Your task to perform on an android device: turn on location history Image 0: 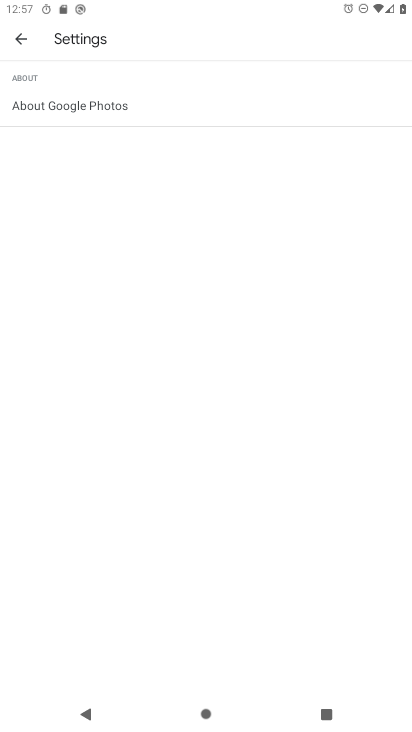
Step 0: press home button
Your task to perform on an android device: turn on location history Image 1: 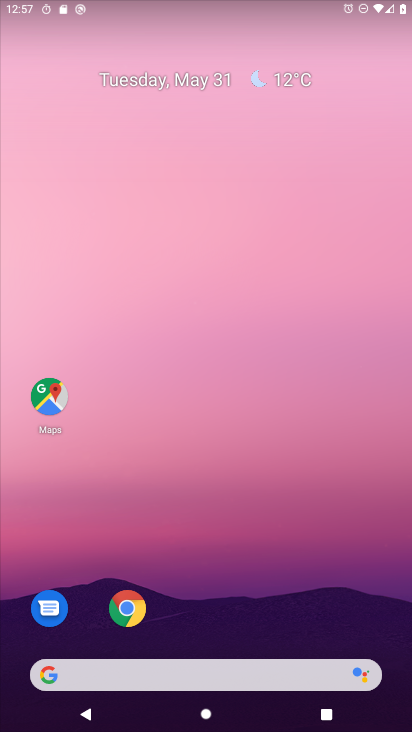
Step 1: click (42, 396)
Your task to perform on an android device: turn on location history Image 2: 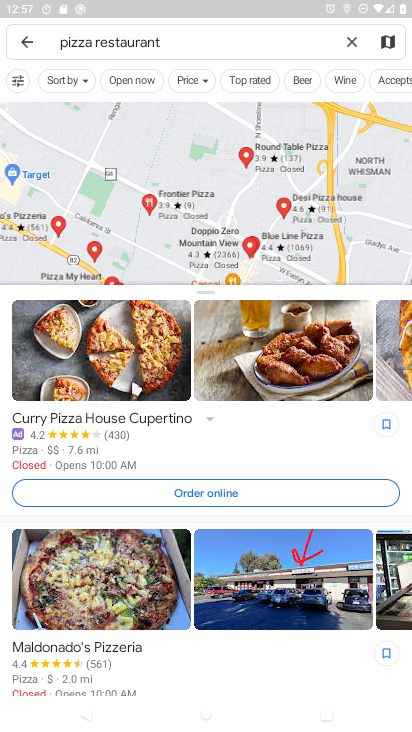
Step 2: click (354, 45)
Your task to perform on an android device: turn on location history Image 3: 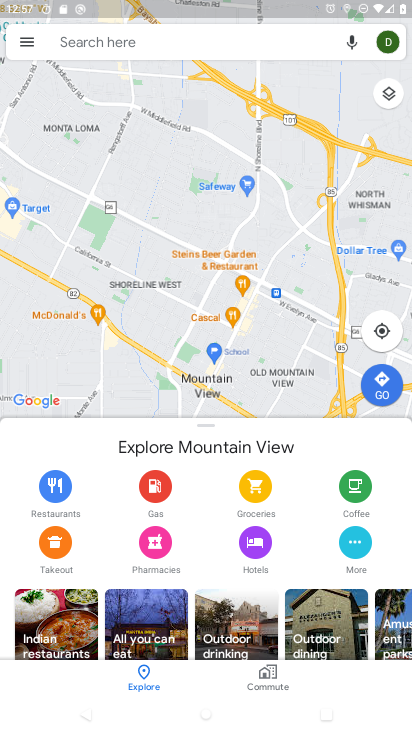
Step 3: click (28, 40)
Your task to perform on an android device: turn on location history Image 4: 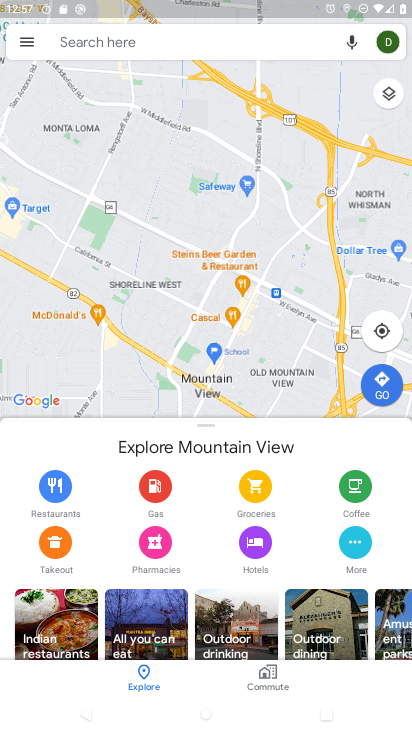
Step 4: click (28, 44)
Your task to perform on an android device: turn on location history Image 5: 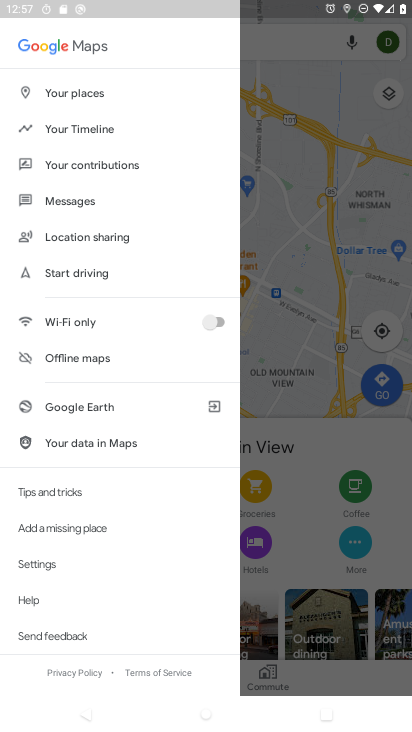
Step 5: click (76, 134)
Your task to perform on an android device: turn on location history Image 6: 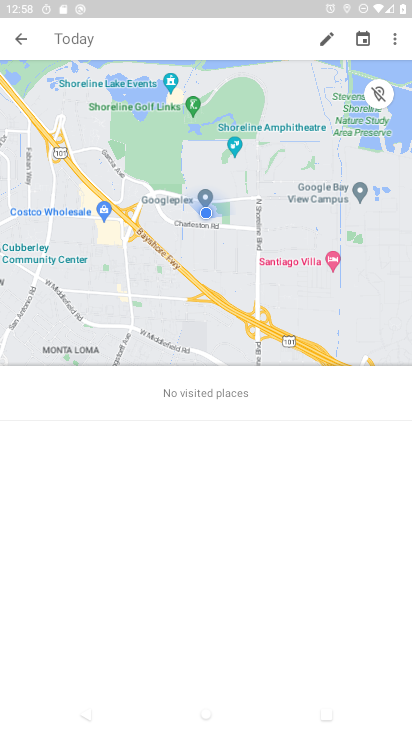
Step 6: click (393, 38)
Your task to perform on an android device: turn on location history Image 7: 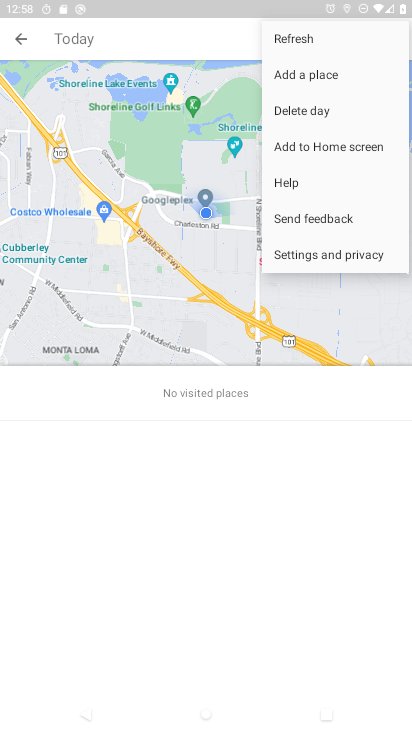
Step 7: click (295, 254)
Your task to perform on an android device: turn on location history Image 8: 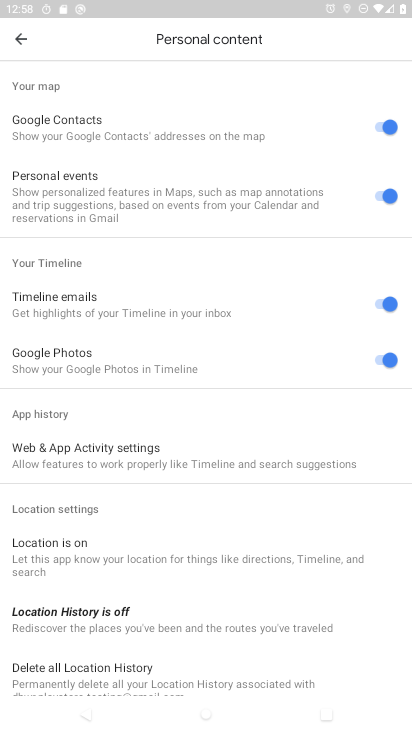
Step 8: click (82, 629)
Your task to perform on an android device: turn on location history Image 9: 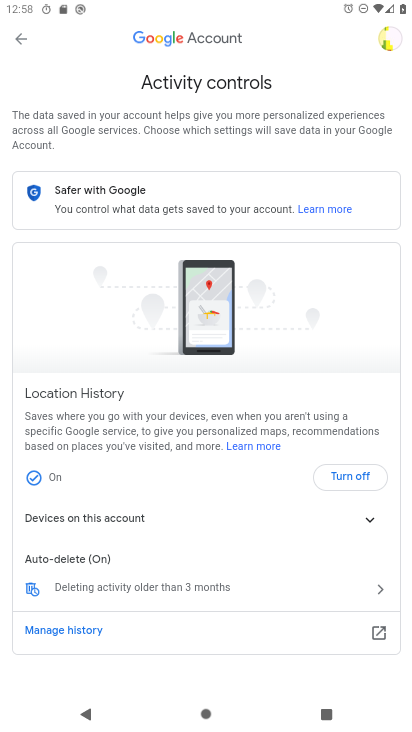
Step 9: task complete